Your task to perform on an android device: open app "Messages" (install if not already installed) Image 0: 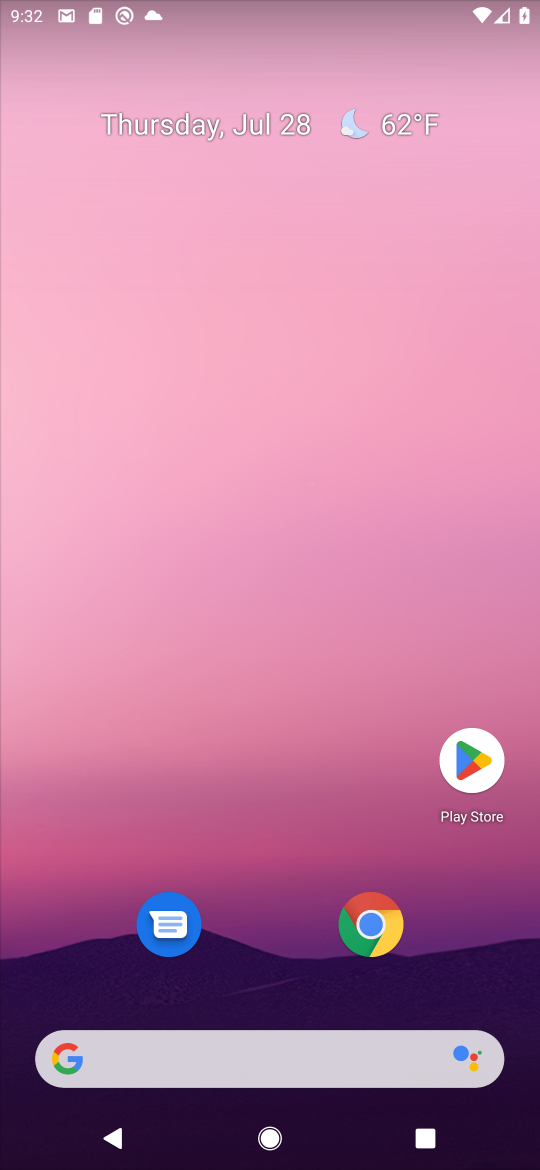
Step 0: click (471, 762)
Your task to perform on an android device: open app "Messages" (install if not already installed) Image 1: 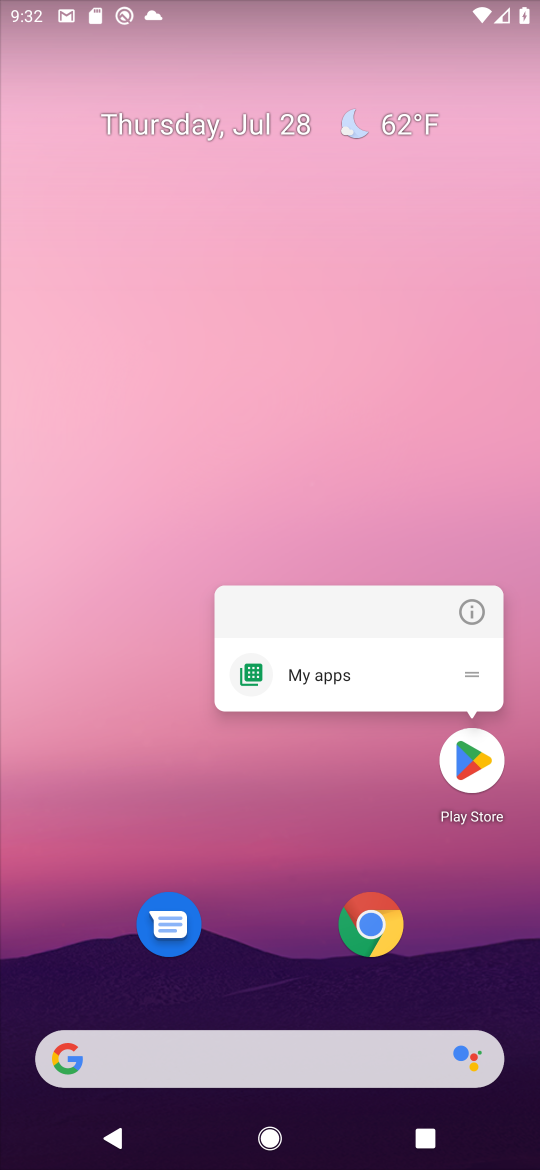
Step 1: click (471, 752)
Your task to perform on an android device: open app "Messages" (install if not already installed) Image 2: 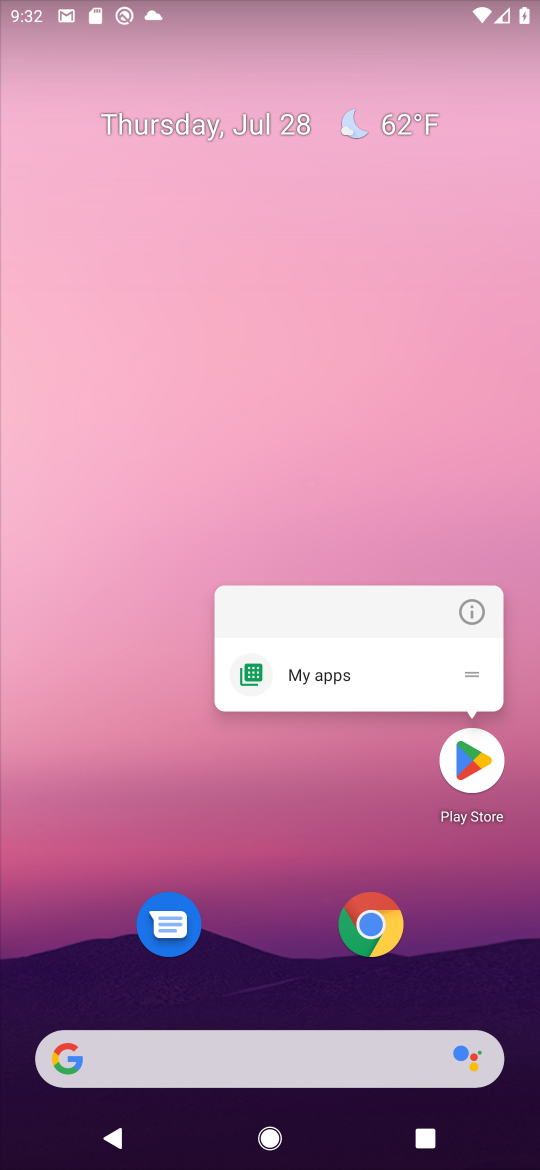
Step 2: drag from (319, 1056) to (423, 223)
Your task to perform on an android device: open app "Messages" (install if not already installed) Image 3: 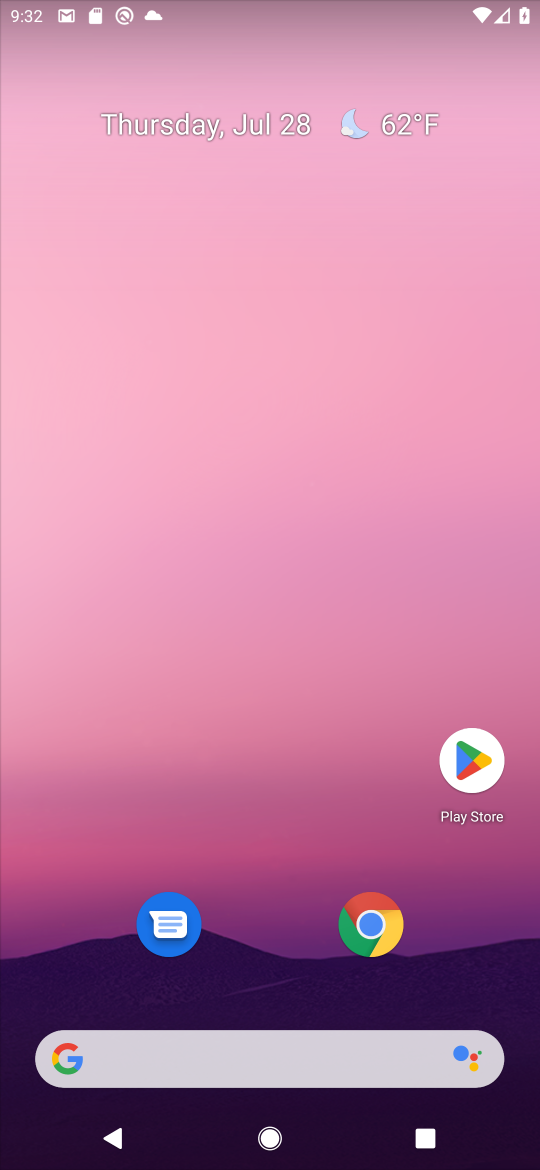
Step 3: drag from (237, 1054) to (430, 137)
Your task to perform on an android device: open app "Messages" (install if not already installed) Image 4: 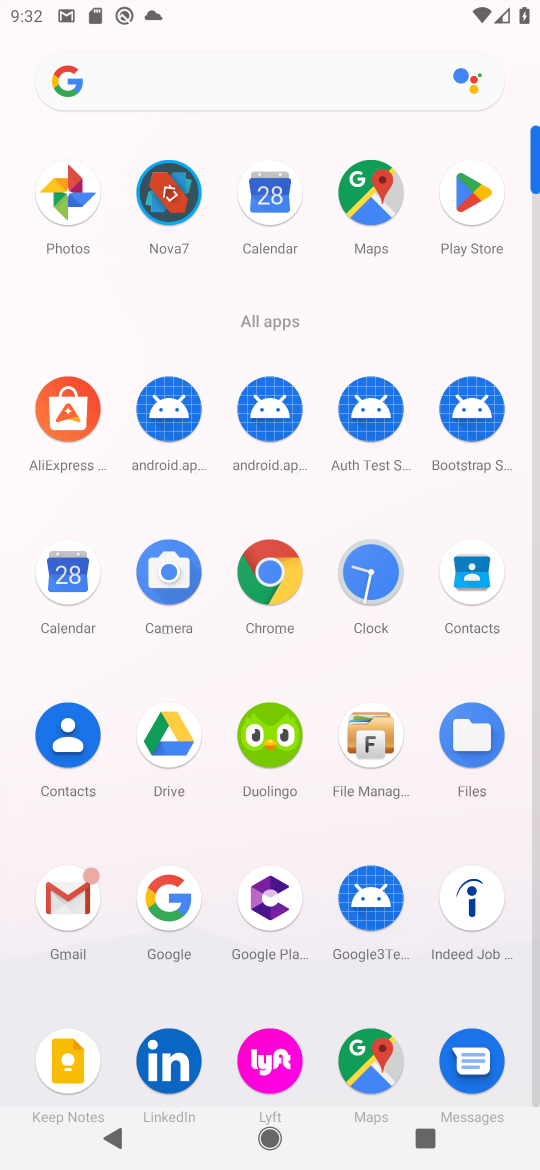
Step 4: click (472, 1069)
Your task to perform on an android device: open app "Messages" (install if not already installed) Image 5: 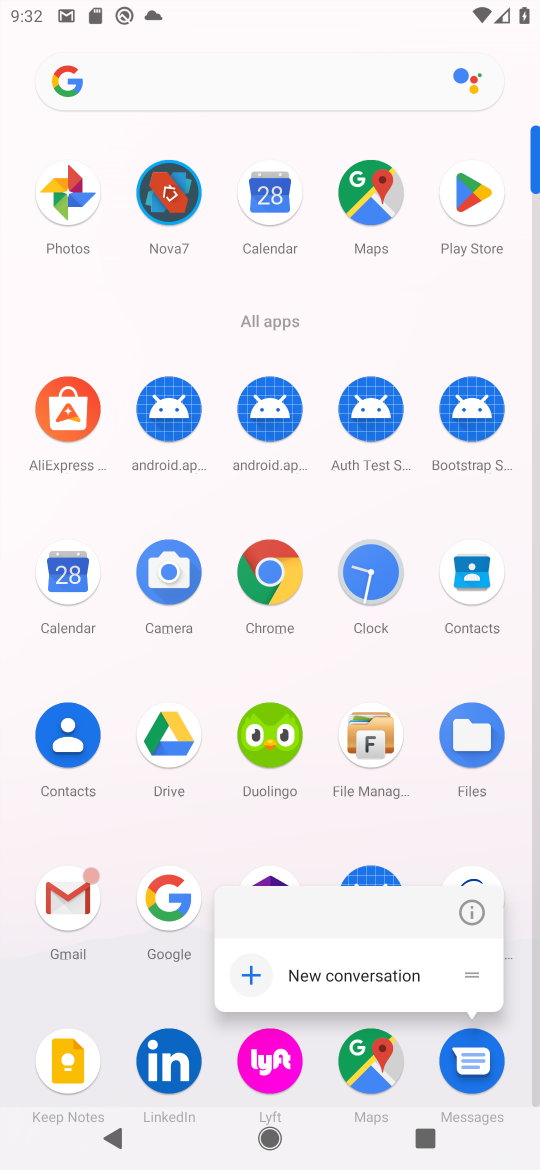
Step 5: click (472, 1068)
Your task to perform on an android device: open app "Messages" (install if not already installed) Image 6: 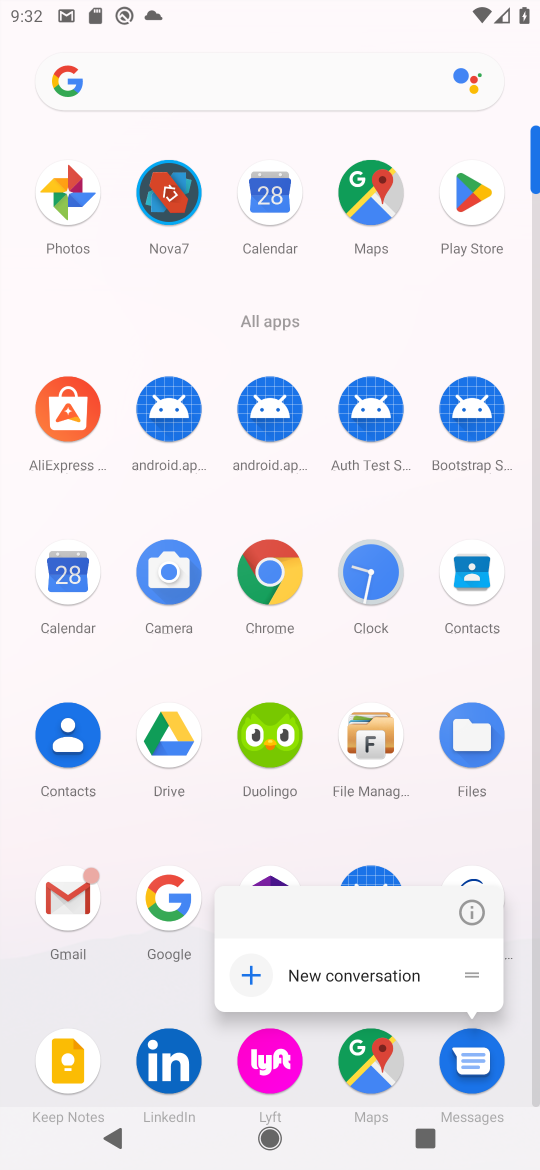
Step 6: click (472, 1070)
Your task to perform on an android device: open app "Messages" (install if not already installed) Image 7: 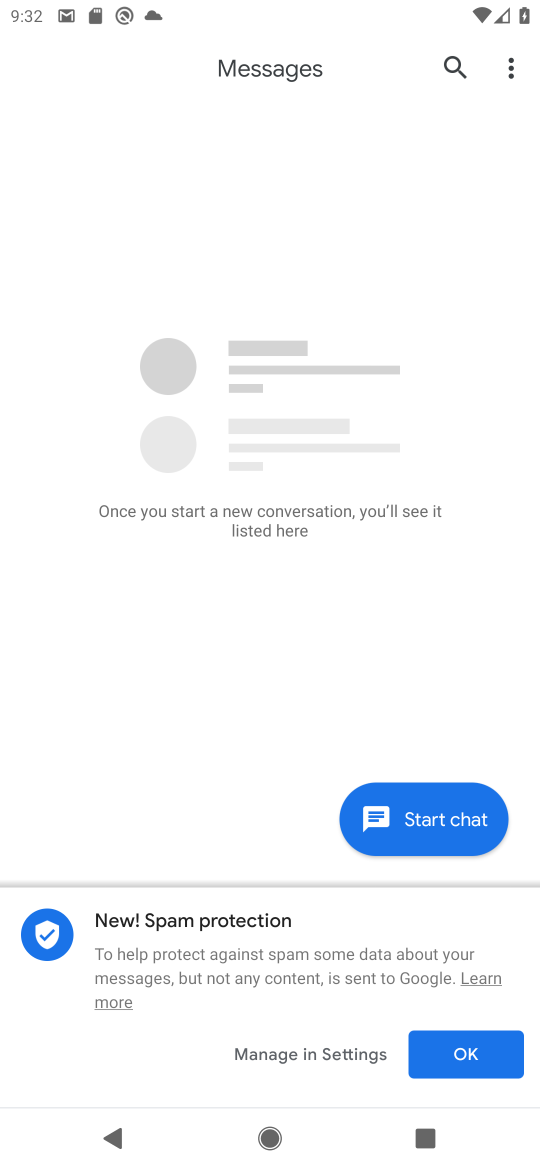
Step 7: click (486, 1052)
Your task to perform on an android device: open app "Messages" (install if not already installed) Image 8: 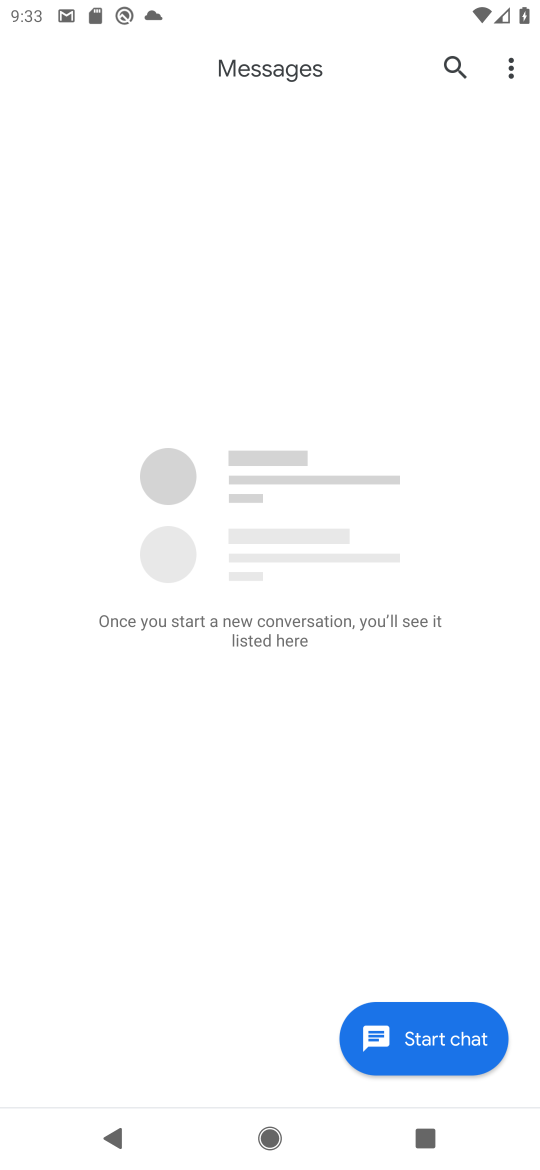
Step 8: task complete